Your task to perform on an android device: star an email in the gmail app Image 0: 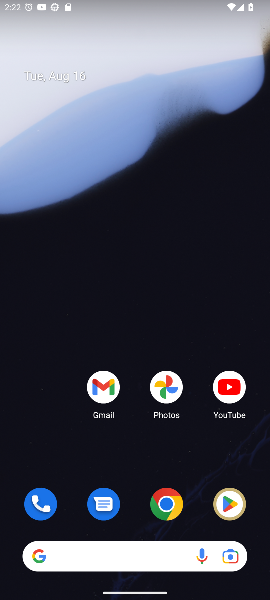
Step 0: drag from (136, 476) to (140, 87)
Your task to perform on an android device: star an email in the gmail app Image 1: 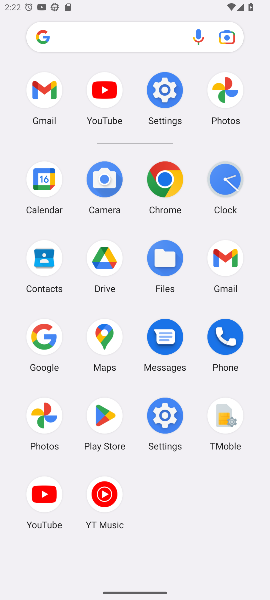
Step 1: click (38, 94)
Your task to perform on an android device: star an email in the gmail app Image 2: 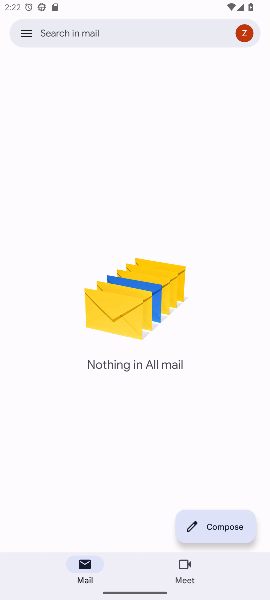
Step 2: click (24, 29)
Your task to perform on an android device: star an email in the gmail app Image 3: 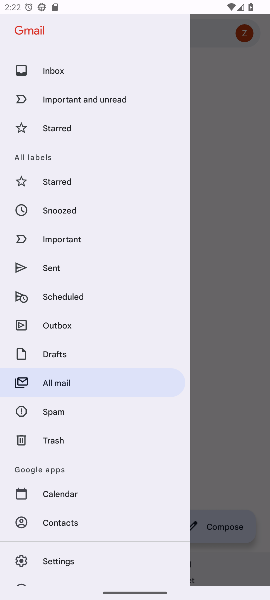
Step 3: click (47, 68)
Your task to perform on an android device: star an email in the gmail app Image 4: 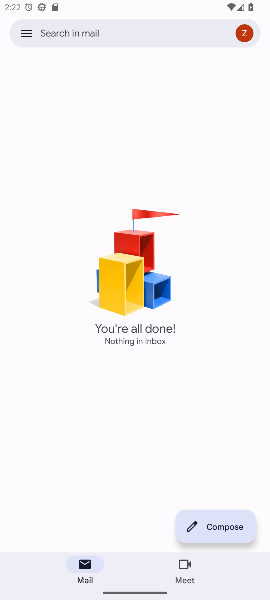
Step 4: task complete